Your task to perform on an android device: set an alarm Image 0: 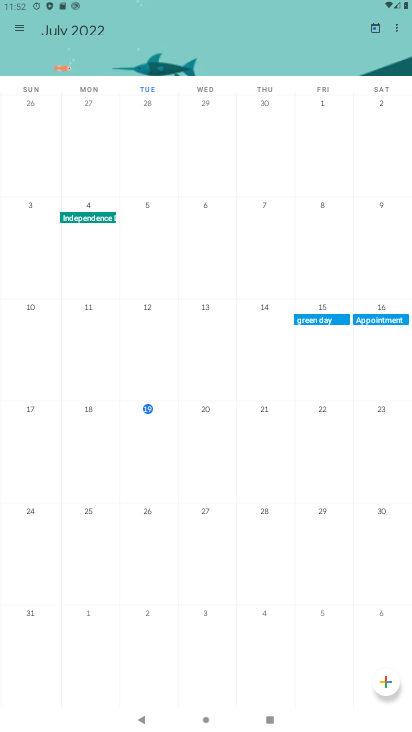
Step 0: press home button
Your task to perform on an android device: set an alarm Image 1: 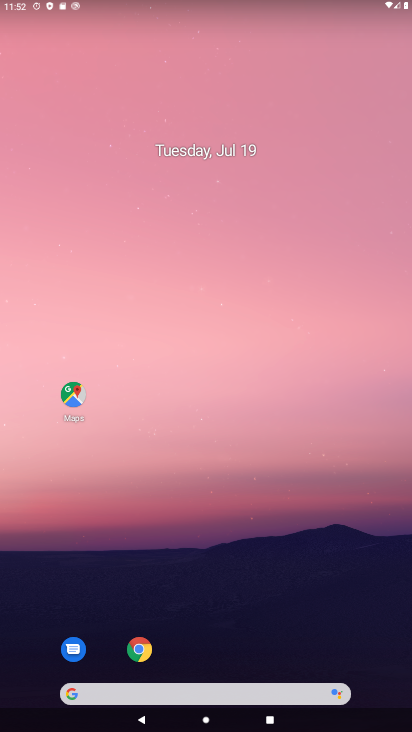
Step 1: drag from (229, 719) to (230, 236)
Your task to perform on an android device: set an alarm Image 2: 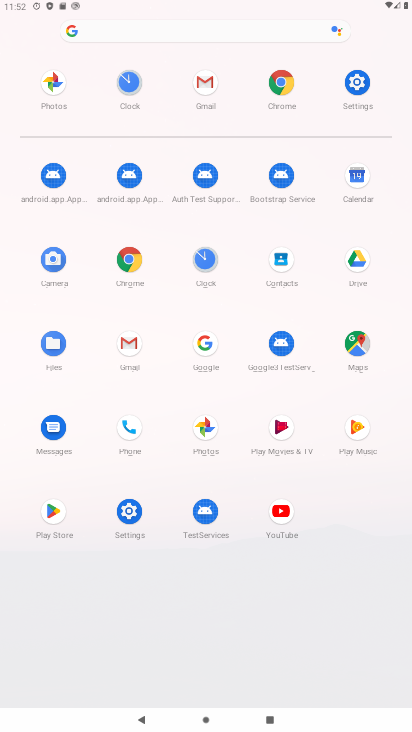
Step 2: click (201, 263)
Your task to perform on an android device: set an alarm Image 3: 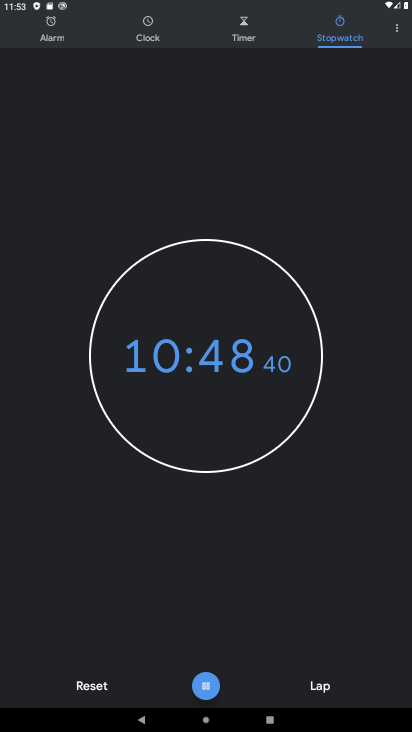
Step 3: click (52, 28)
Your task to perform on an android device: set an alarm Image 4: 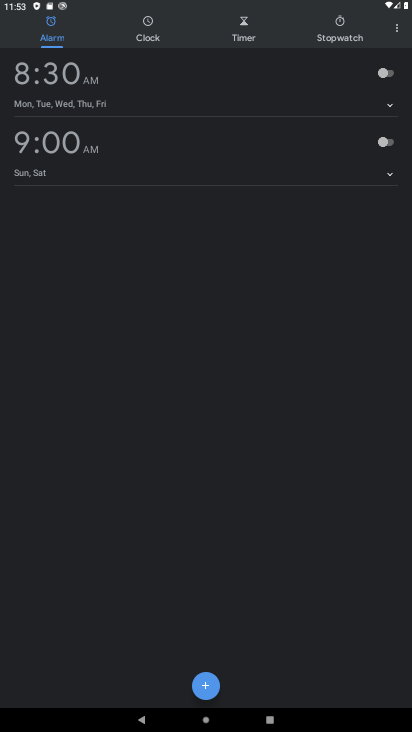
Step 4: click (203, 683)
Your task to perform on an android device: set an alarm Image 5: 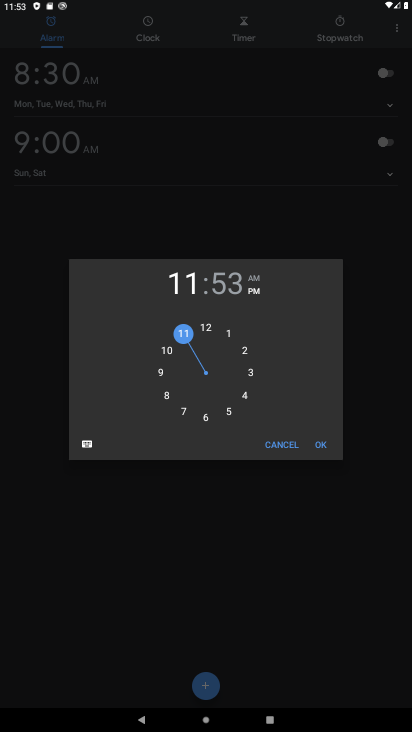
Step 5: click (201, 414)
Your task to perform on an android device: set an alarm Image 6: 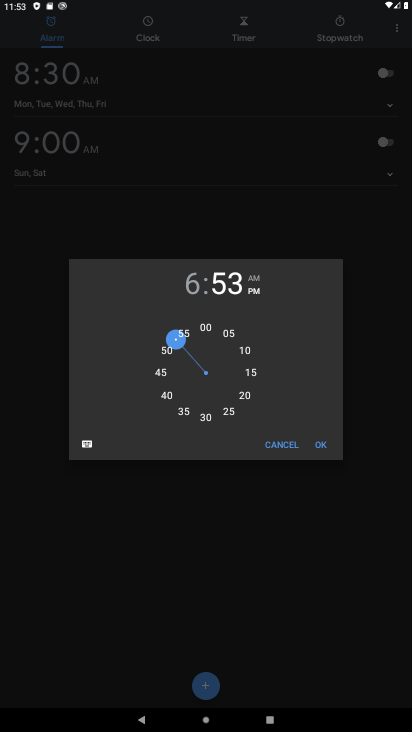
Step 6: click (319, 447)
Your task to perform on an android device: set an alarm Image 7: 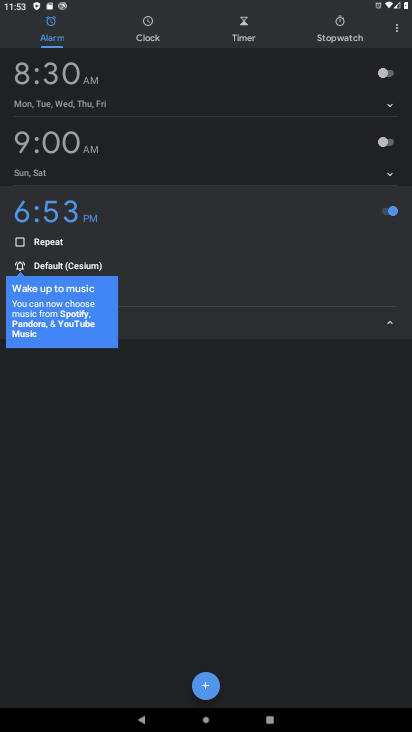
Step 7: task complete